Your task to perform on an android device: Open Wikipedia Image 0: 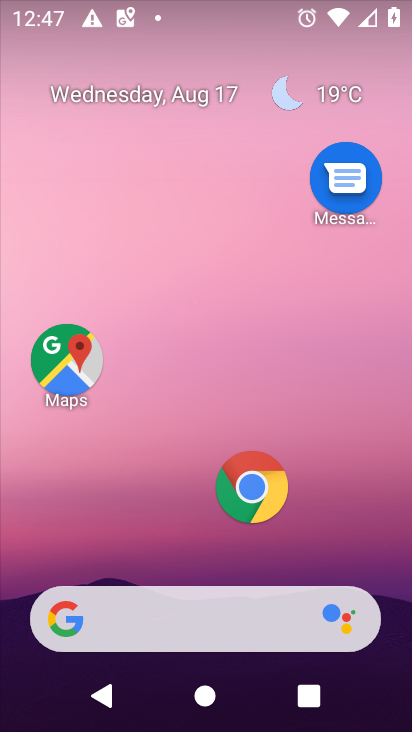
Step 0: click (257, 476)
Your task to perform on an android device: Open Wikipedia Image 1: 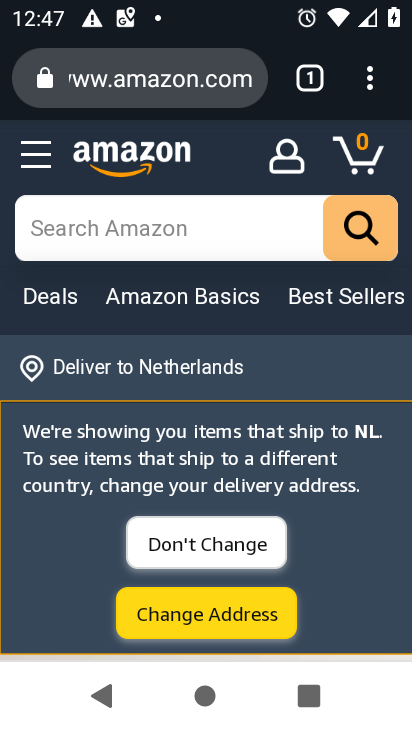
Step 1: click (304, 94)
Your task to perform on an android device: Open Wikipedia Image 2: 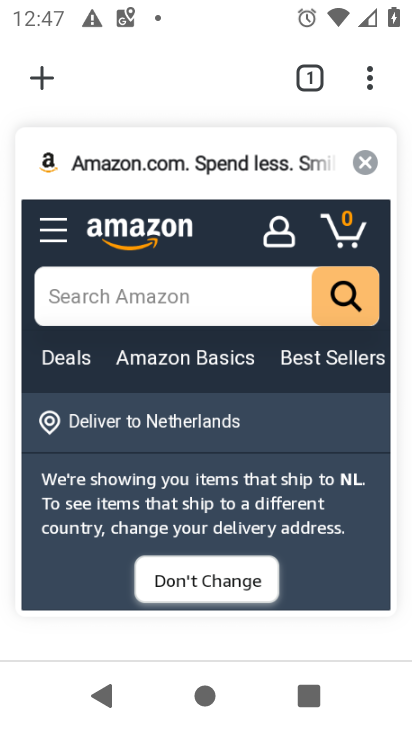
Step 2: click (43, 72)
Your task to perform on an android device: Open Wikipedia Image 3: 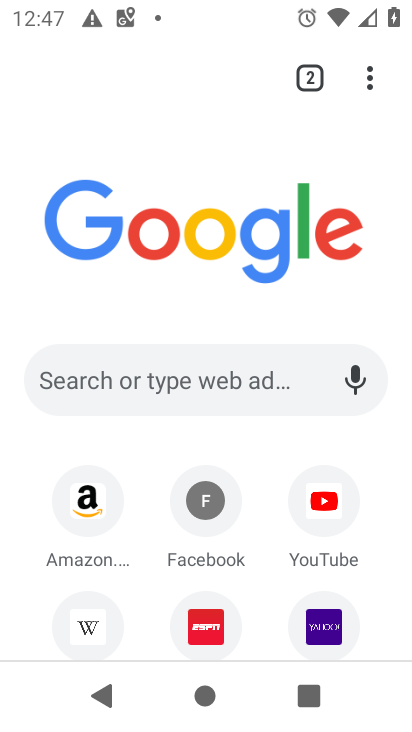
Step 3: click (95, 615)
Your task to perform on an android device: Open Wikipedia Image 4: 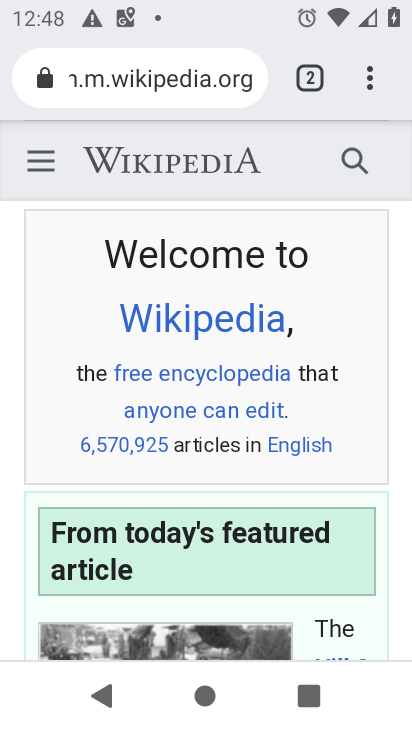
Step 4: task complete